Your task to perform on an android device: Go to Google maps Image 0: 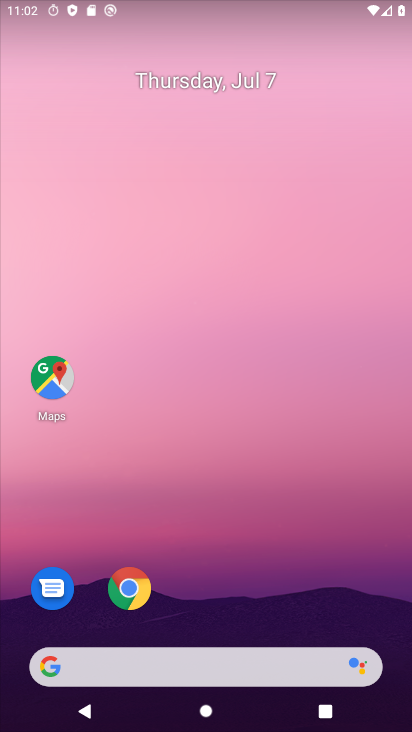
Step 0: drag from (265, 503) to (229, 71)
Your task to perform on an android device: Go to Google maps Image 1: 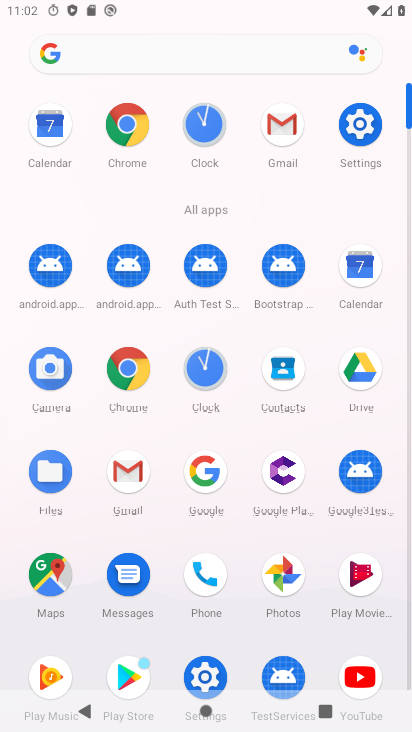
Step 1: click (47, 570)
Your task to perform on an android device: Go to Google maps Image 2: 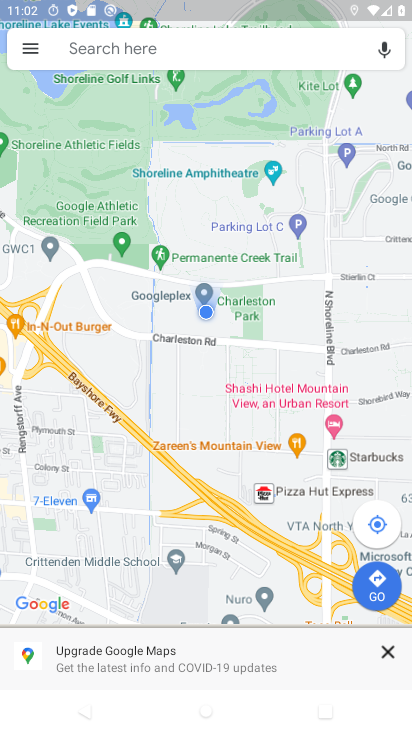
Step 2: task complete